Your task to perform on an android device: Show me the alarms in the clock app Image 0: 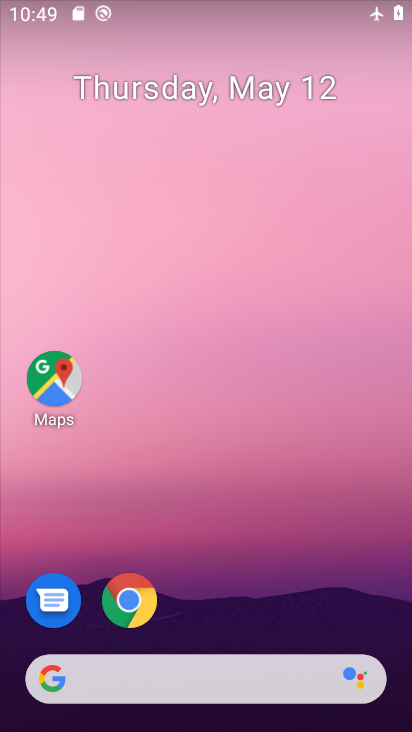
Step 0: drag from (204, 521) to (99, 100)
Your task to perform on an android device: Show me the alarms in the clock app Image 1: 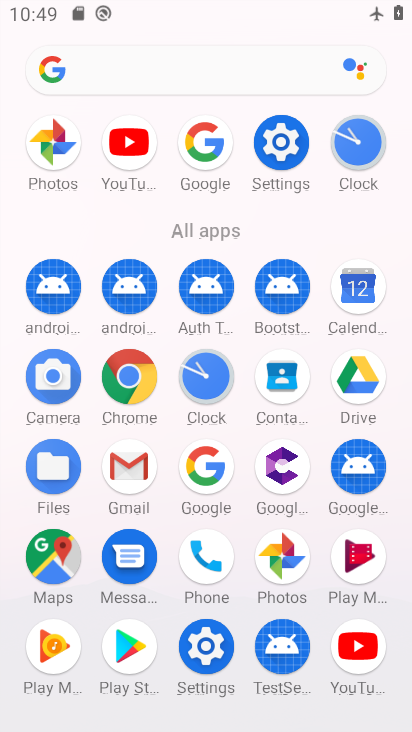
Step 1: click (354, 157)
Your task to perform on an android device: Show me the alarms in the clock app Image 2: 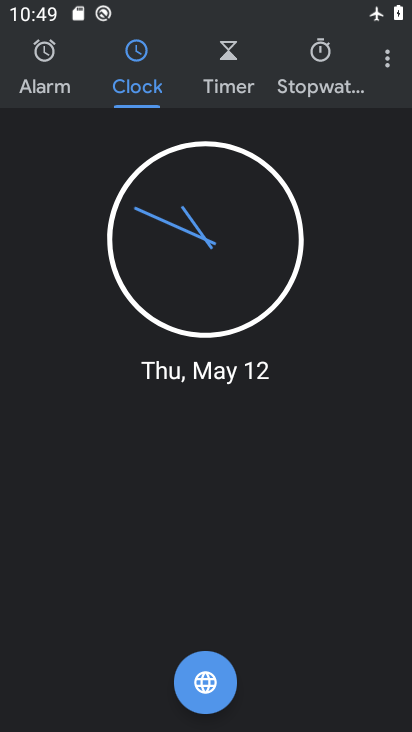
Step 2: click (43, 65)
Your task to perform on an android device: Show me the alarms in the clock app Image 3: 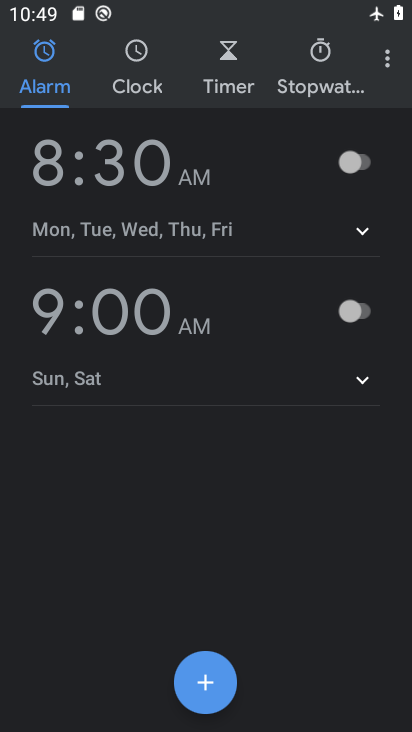
Step 3: task complete